Your task to perform on an android device: open wifi settings Image 0: 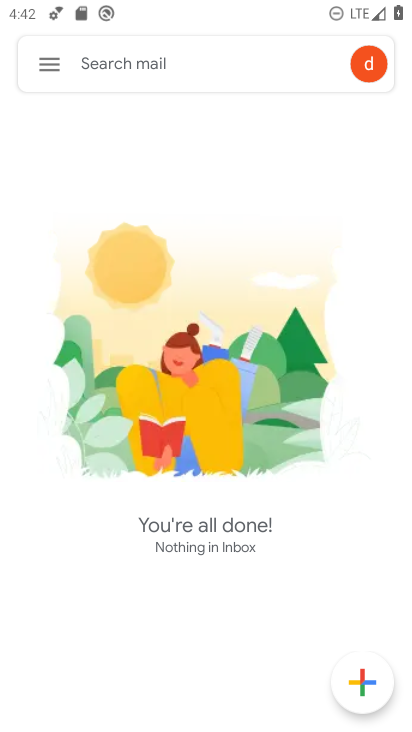
Step 0: press home button
Your task to perform on an android device: open wifi settings Image 1: 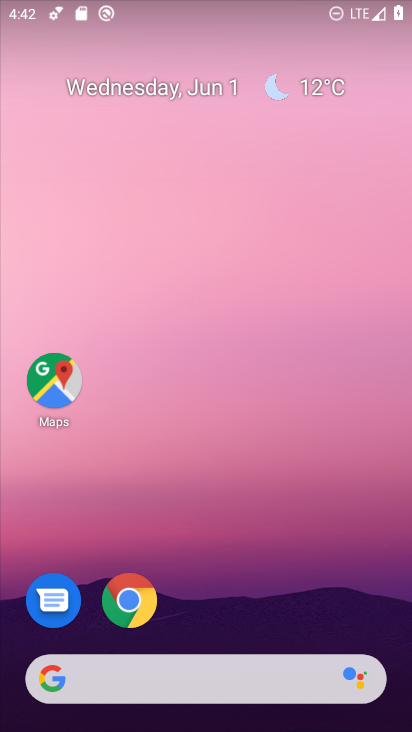
Step 1: drag from (395, 627) to (303, 10)
Your task to perform on an android device: open wifi settings Image 2: 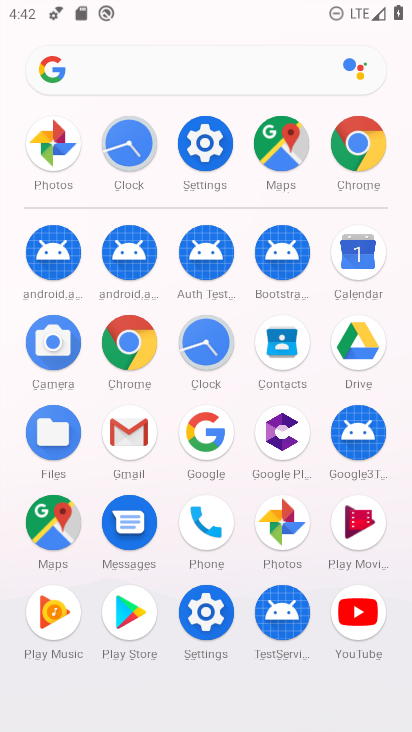
Step 2: click (206, 612)
Your task to perform on an android device: open wifi settings Image 3: 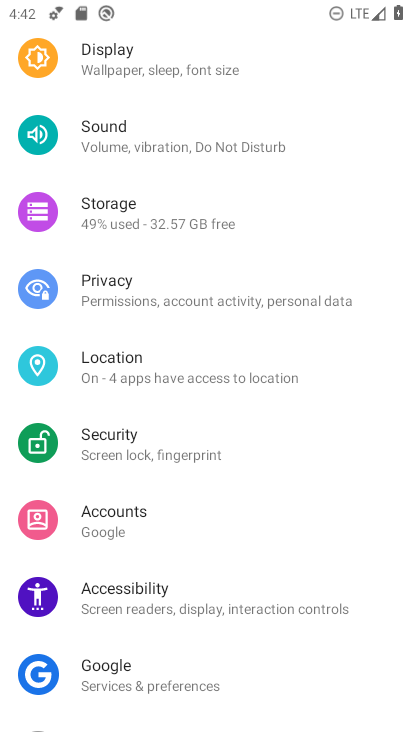
Step 3: drag from (345, 126) to (377, 461)
Your task to perform on an android device: open wifi settings Image 4: 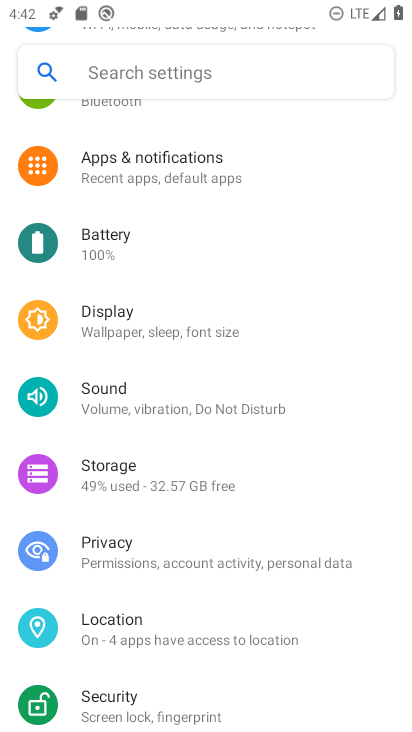
Step 4: drag from (345, 226) to (333, 422)
Your task to perform on an android device: open wifi settings Image 5: 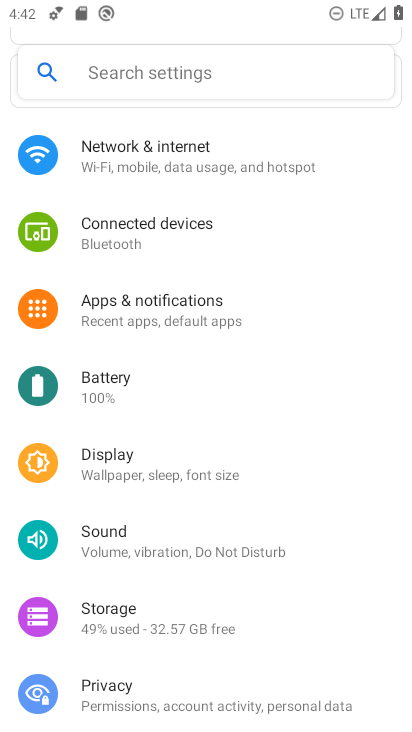
Step 5: click (121, 167)
Your task to perform on an android device: open wifi settings Image 6: 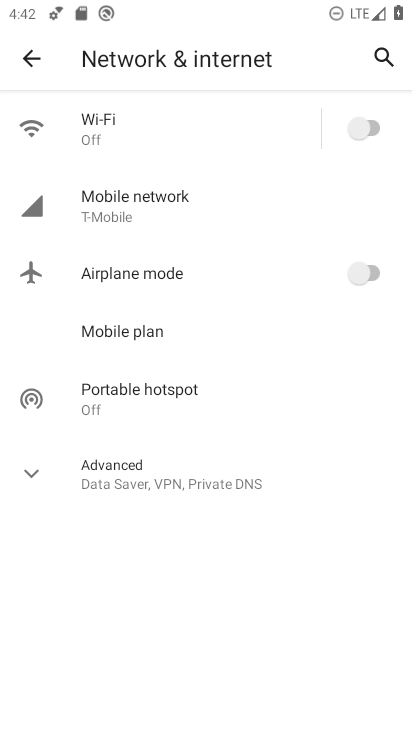
Step 6: click (91, 129)
Your task to perform on an android device: open wifi settings Image 7: 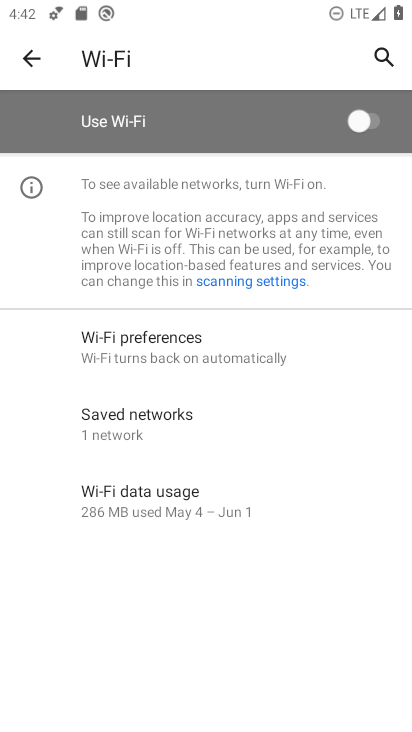
Step 7: task complete